Your task to perform on an android device: Go to settings Image 0: 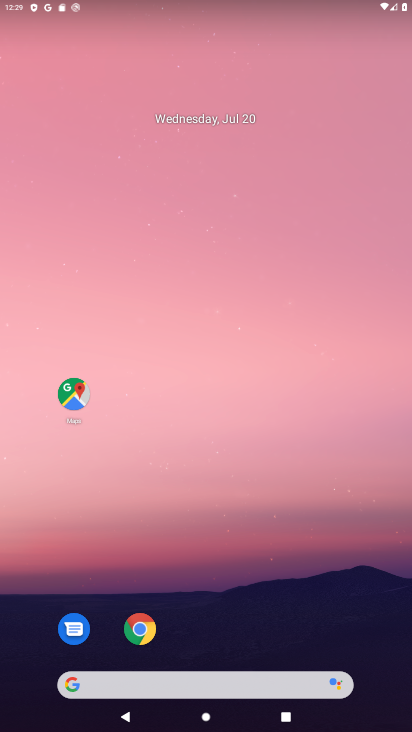
Step 0: drag from (276, 622) to (304, 3)
Your task to perform on an android device: Go to settings Image 1: 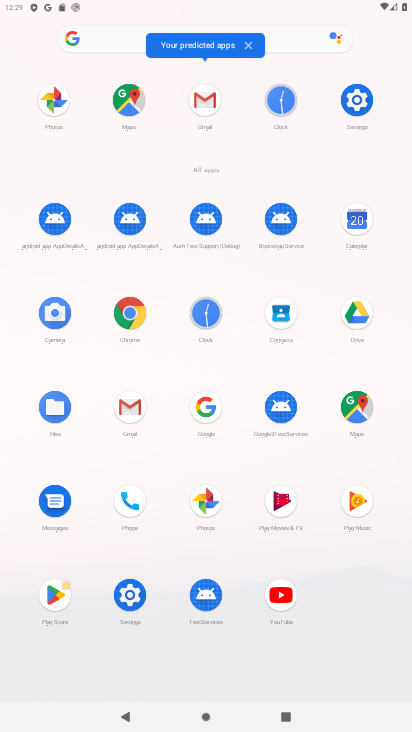
Step 1: click (356, 111)
Your task to perform on an android device: Go to settings Image 2: 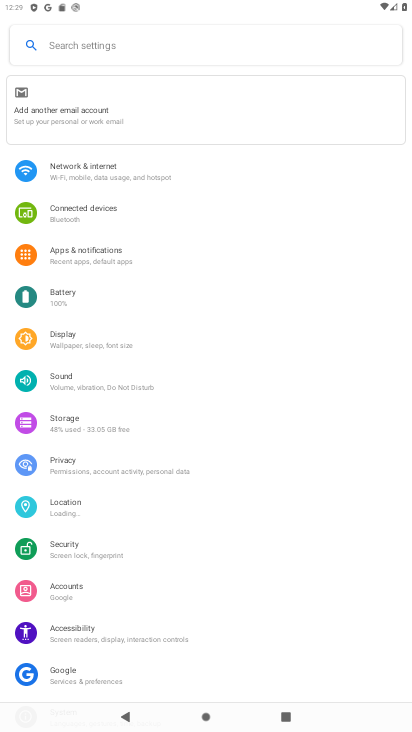
Step 2: task complete